Your task to perform on an android device: Add amazon basics triple a to the cart on newegg.com, then select checkout. Image 0: 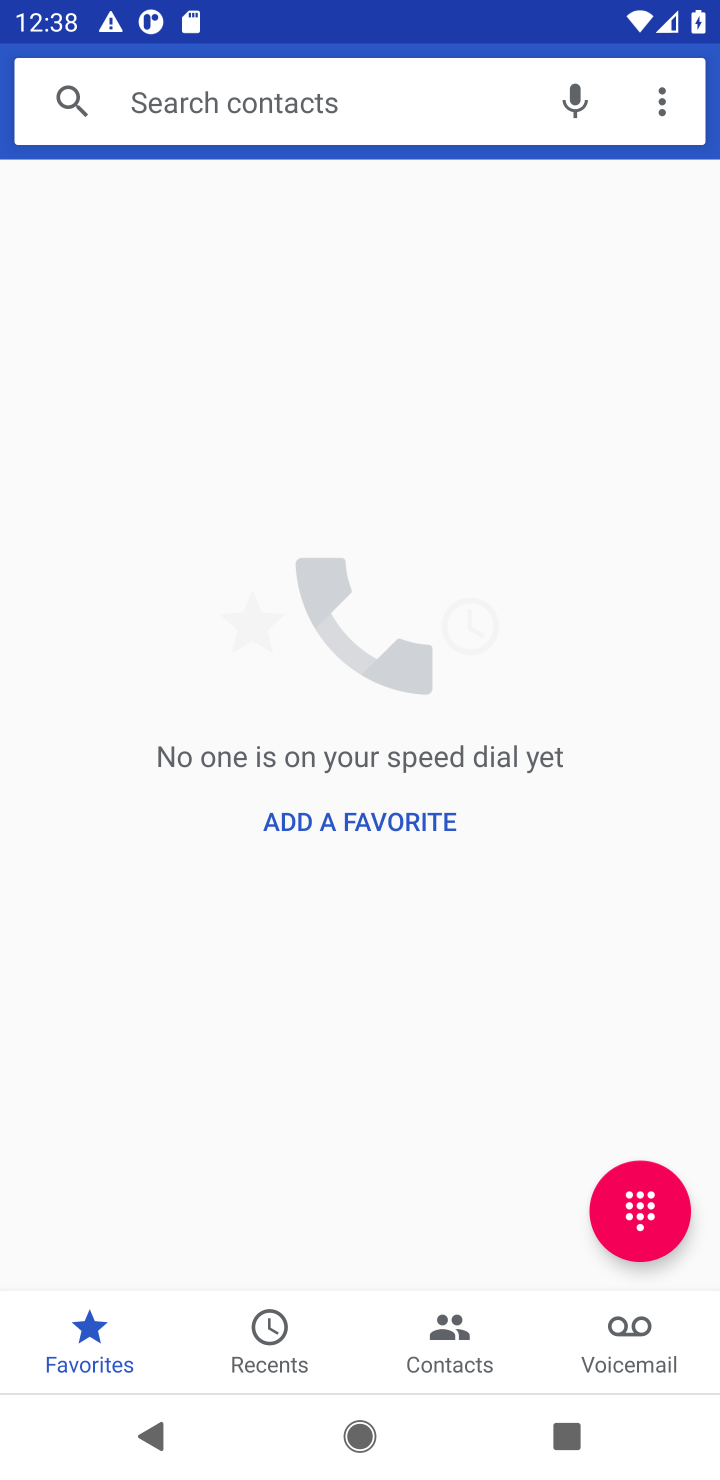
Step 0: press home button
Your task to perform on an android device: Add amazon basics triple a to the cart on newegg.com, then select checkout. Image 1: 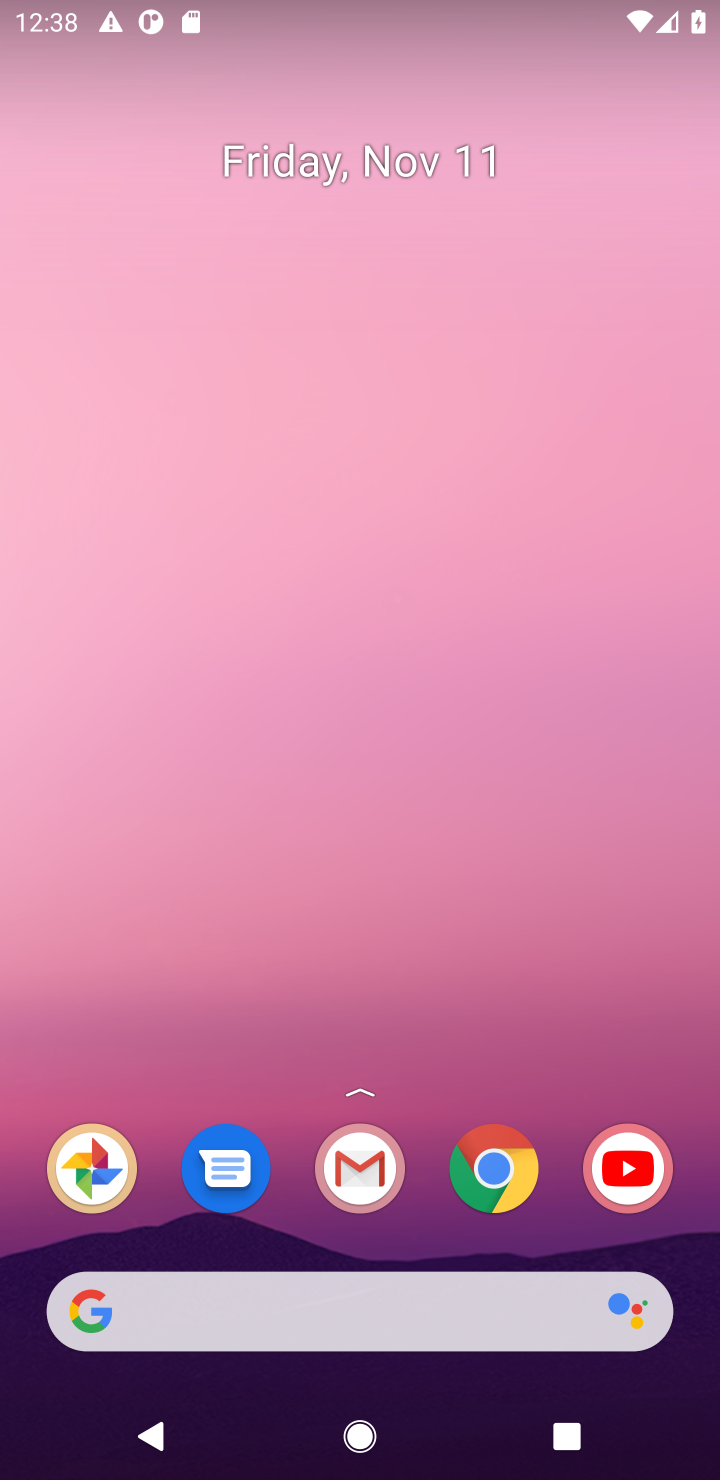
Step 1: click (497, 1169)
Your task to perform on an android device: Add amazon basics triple a to the cart on newegg.com, then select checkout. Image 2: 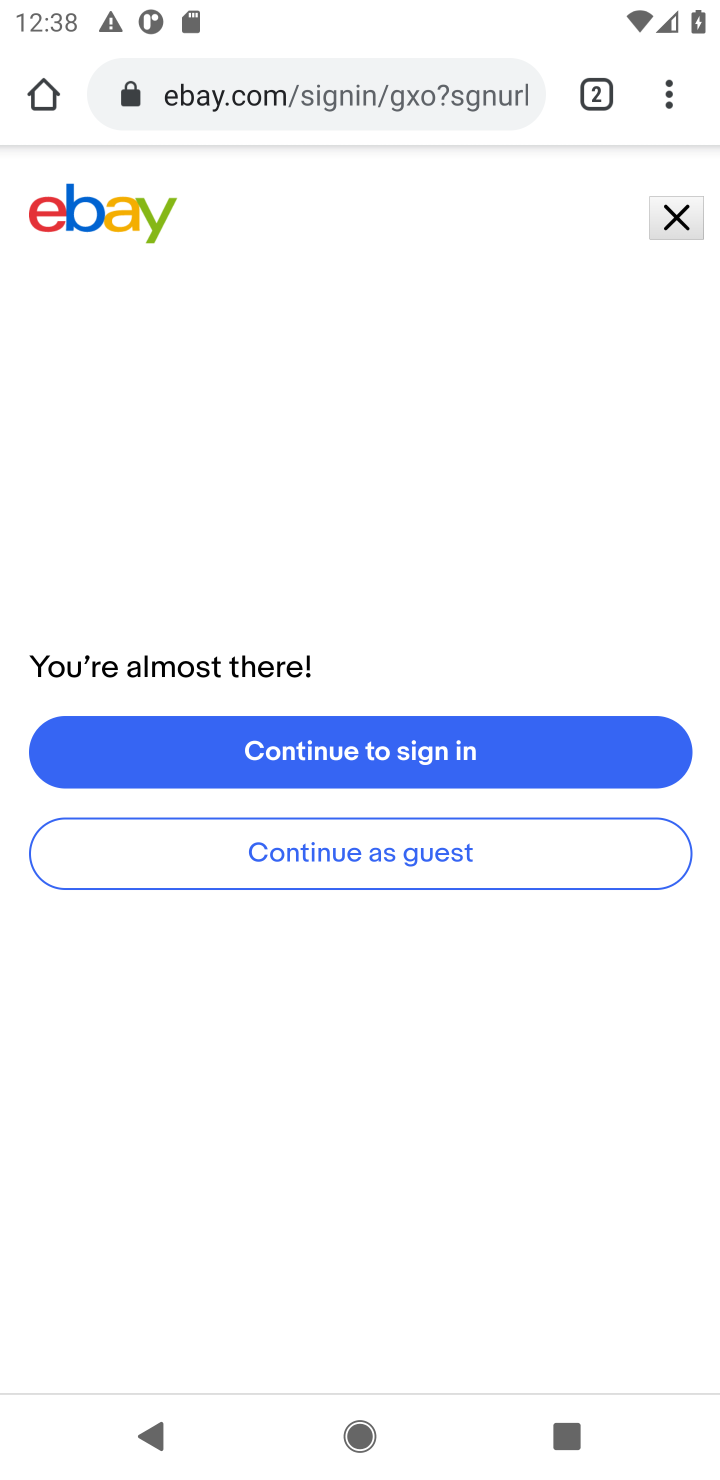
Step 2: click (282, 107)
Your task to perform on an android device: Add amazon basics triple a to the cart on newegg.com, then select checkout. Image 3: 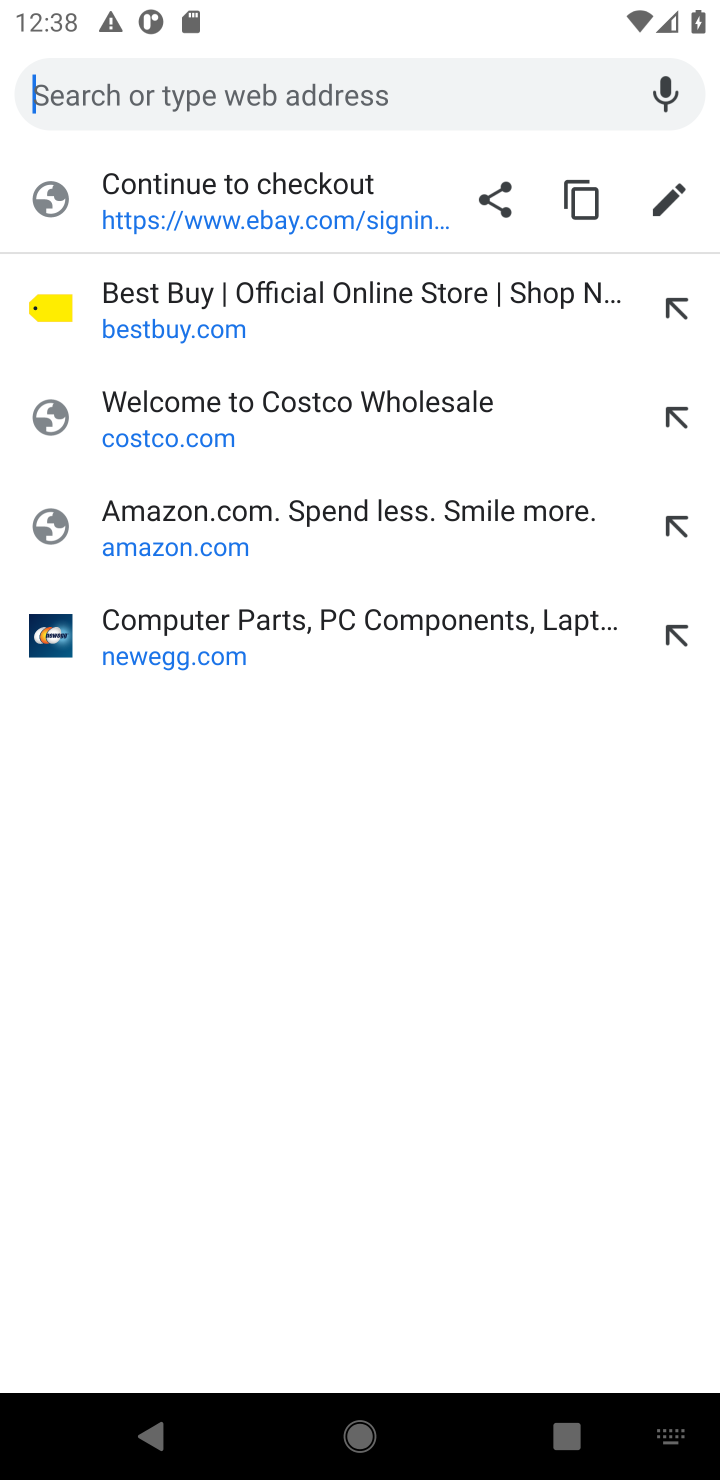
Step 3: click (163, 639)
Your task to perform on an android device: Add amazon basics triple a to the cart on newegg.com, then select checkout. Image 4: 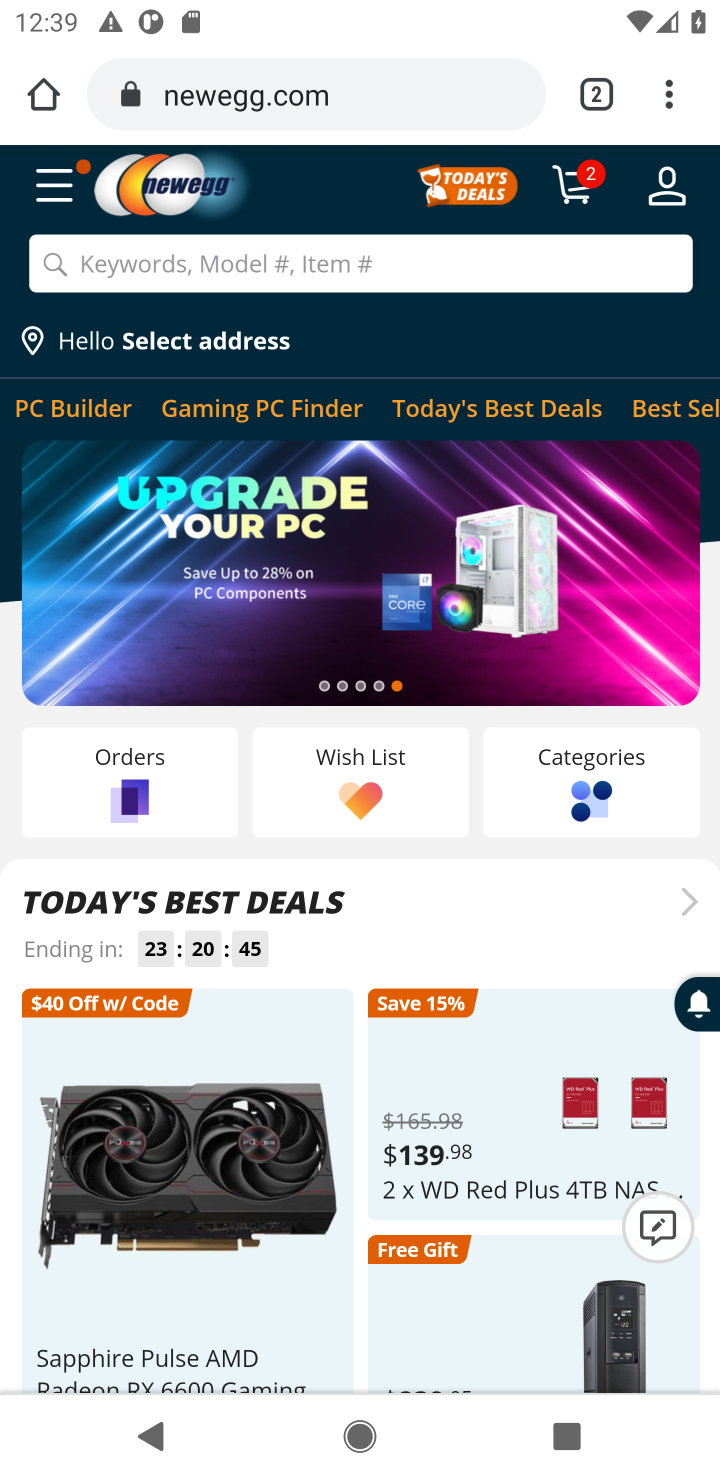
Step 4: click (174, 268)
Your task to perform on an android device: Add amazon basics triple a to the cart on newegg.com, then select checkout. Image 5: 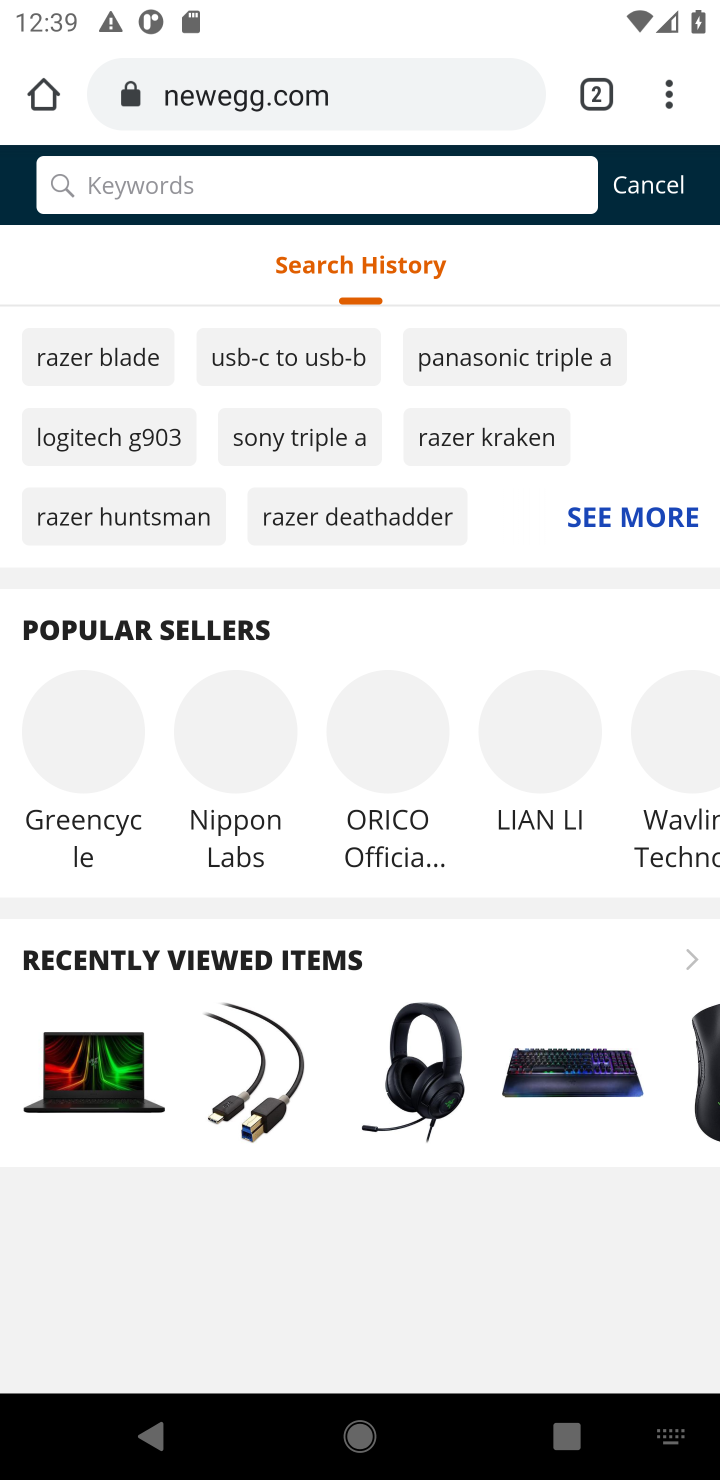
Step 5: type " amazon basics triple a"
Your task to perform on an android device: Add amazon basics triple a to the cart on newegg.com, then select checkout. Image 6: 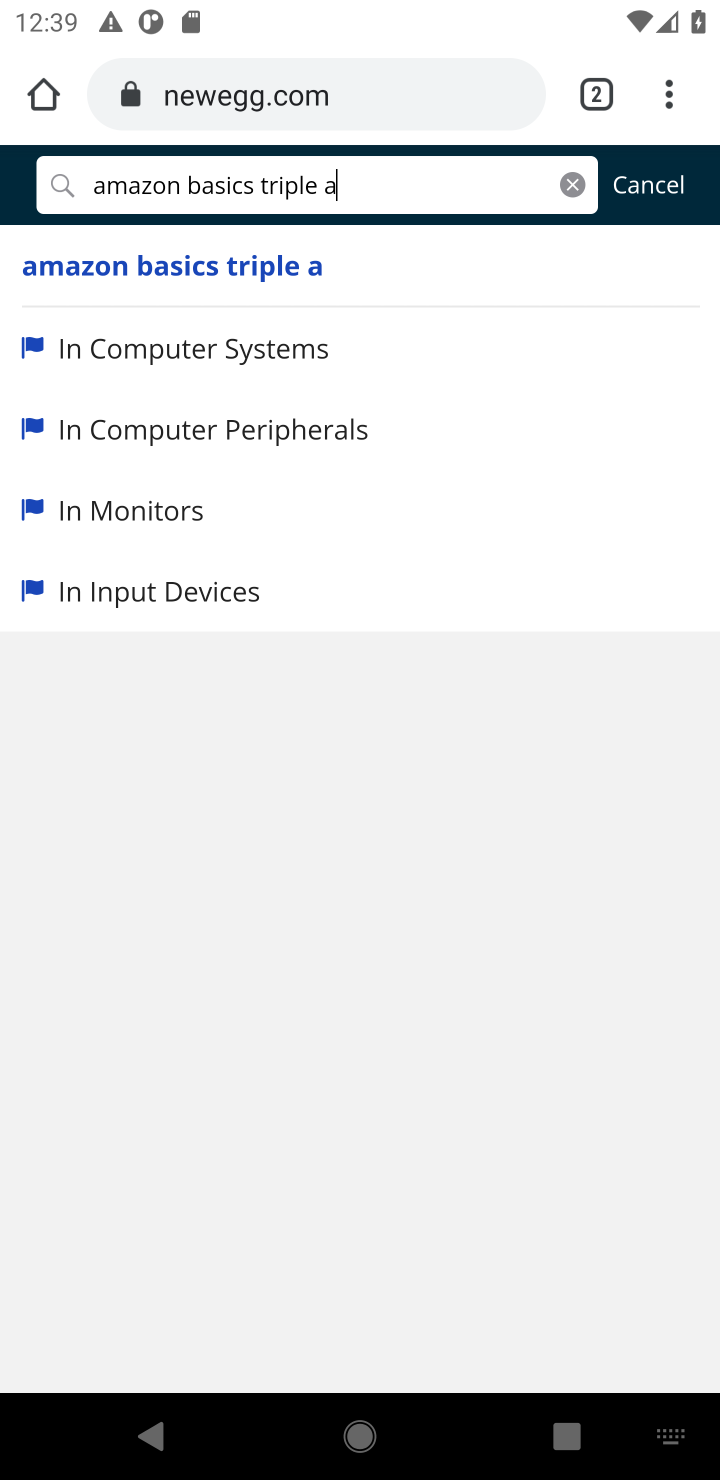
Step 6: click (192, 280)
Your task to perform on an android device: Add amazon basics triple a to the cart on newegg.com, then select checkout. Image 7: 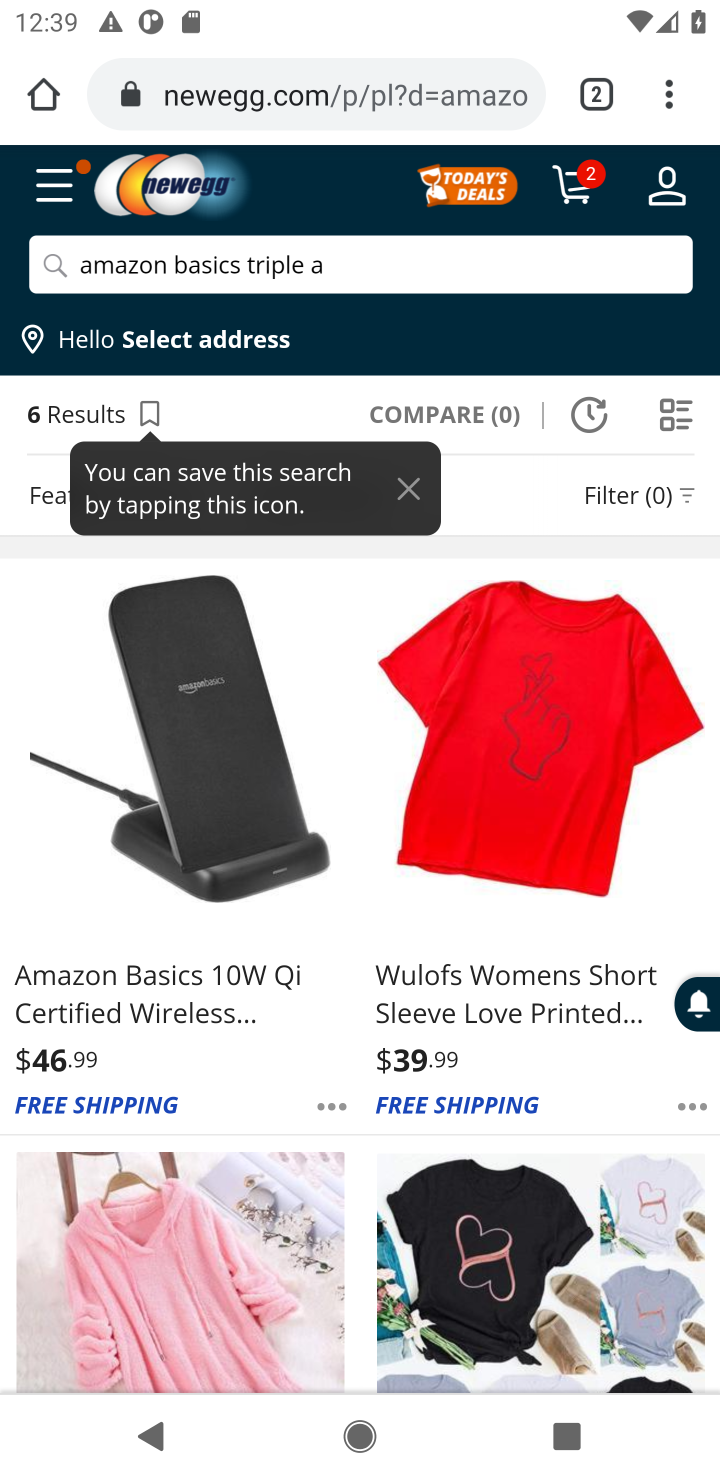
Step 7: task complete